Your task to perform on an android device: open app "NewsBreak: Local News & Alerts" (install if not already installed) and go to login screen Image 0: 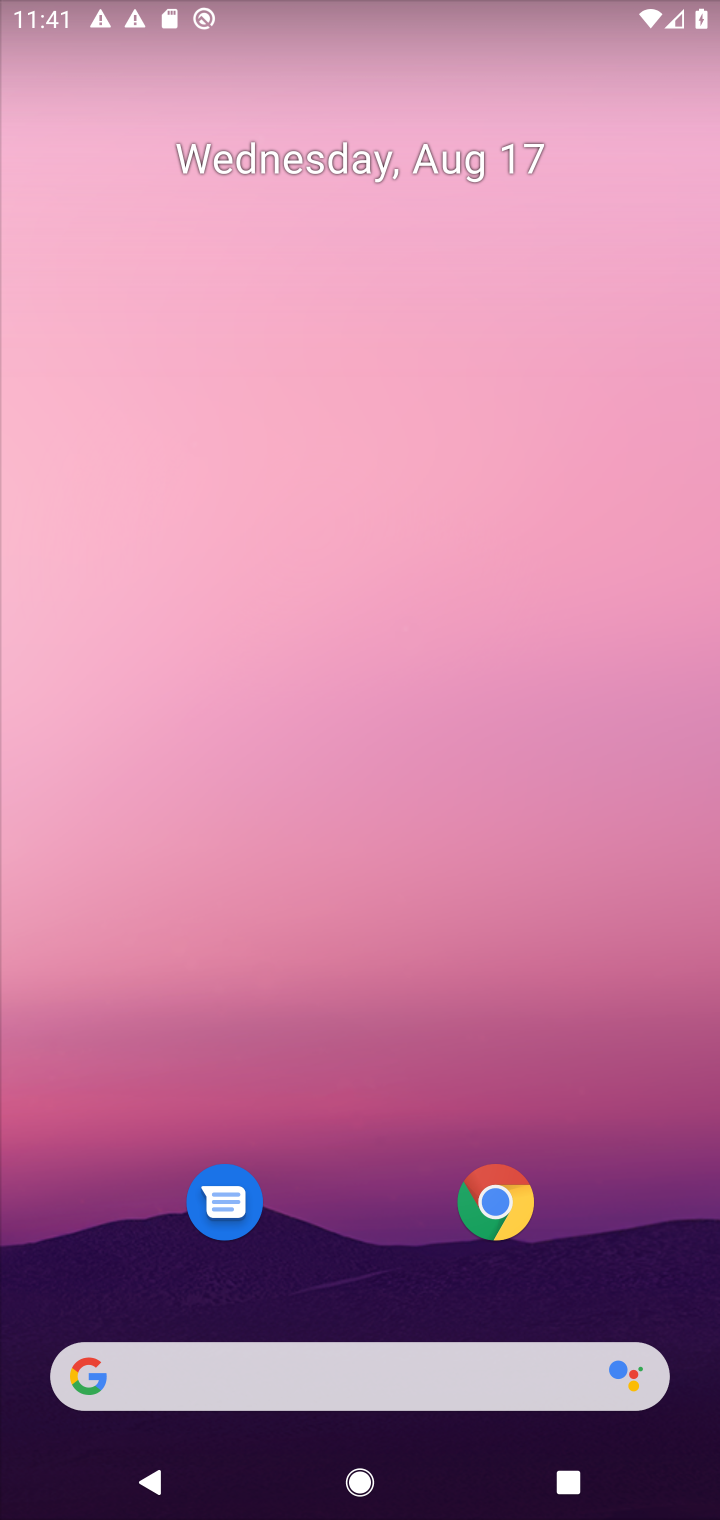
Step 0: drag from (333, 1293) to (245, 182)
Your task to perform on an android device: open app "NewsBreak: Local News & Alerts" (install if not already installed) and go to login screen Image 1: 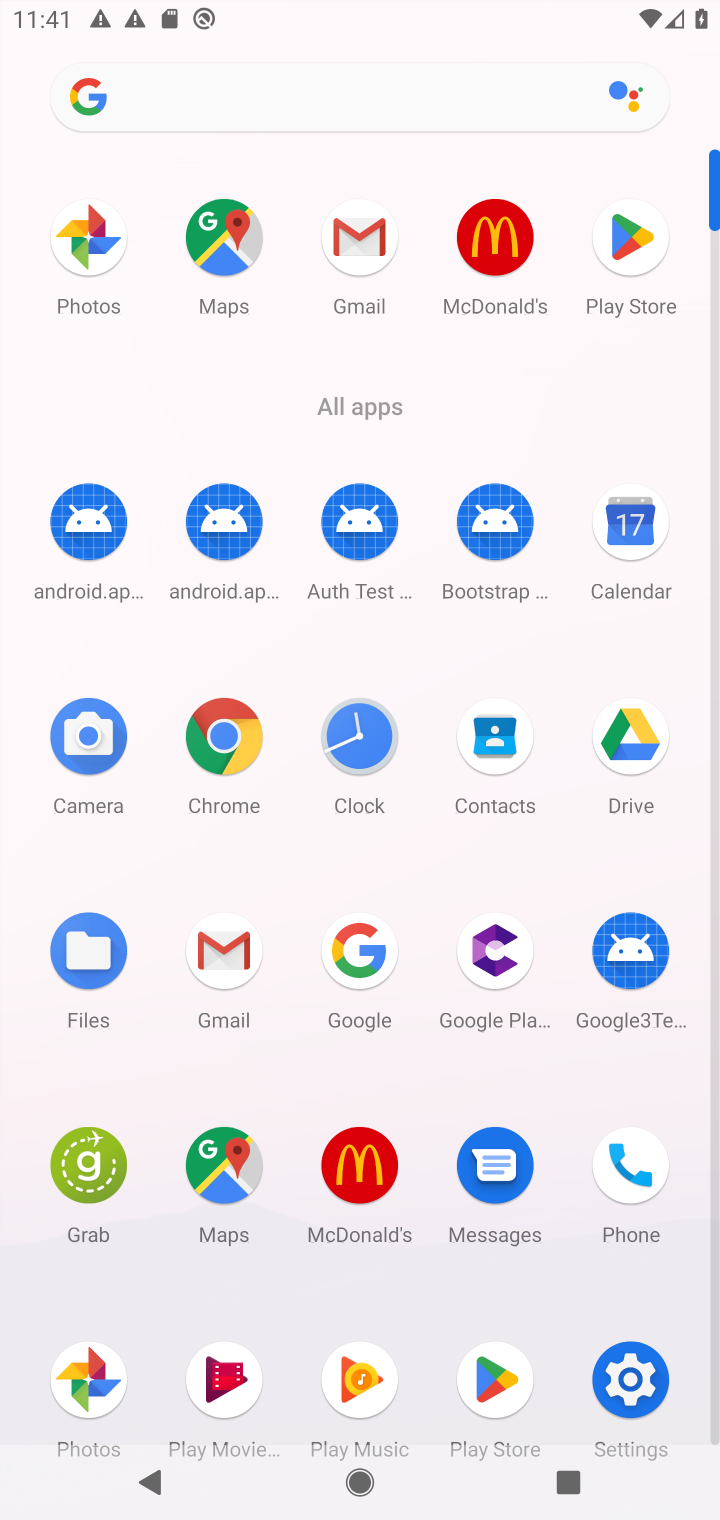
Step 1: click (659, 234)
Your task to perform on an android device: open app "NewsBreak: Local News & Alerts" (install if not already installed) and go to login screen Image 2: 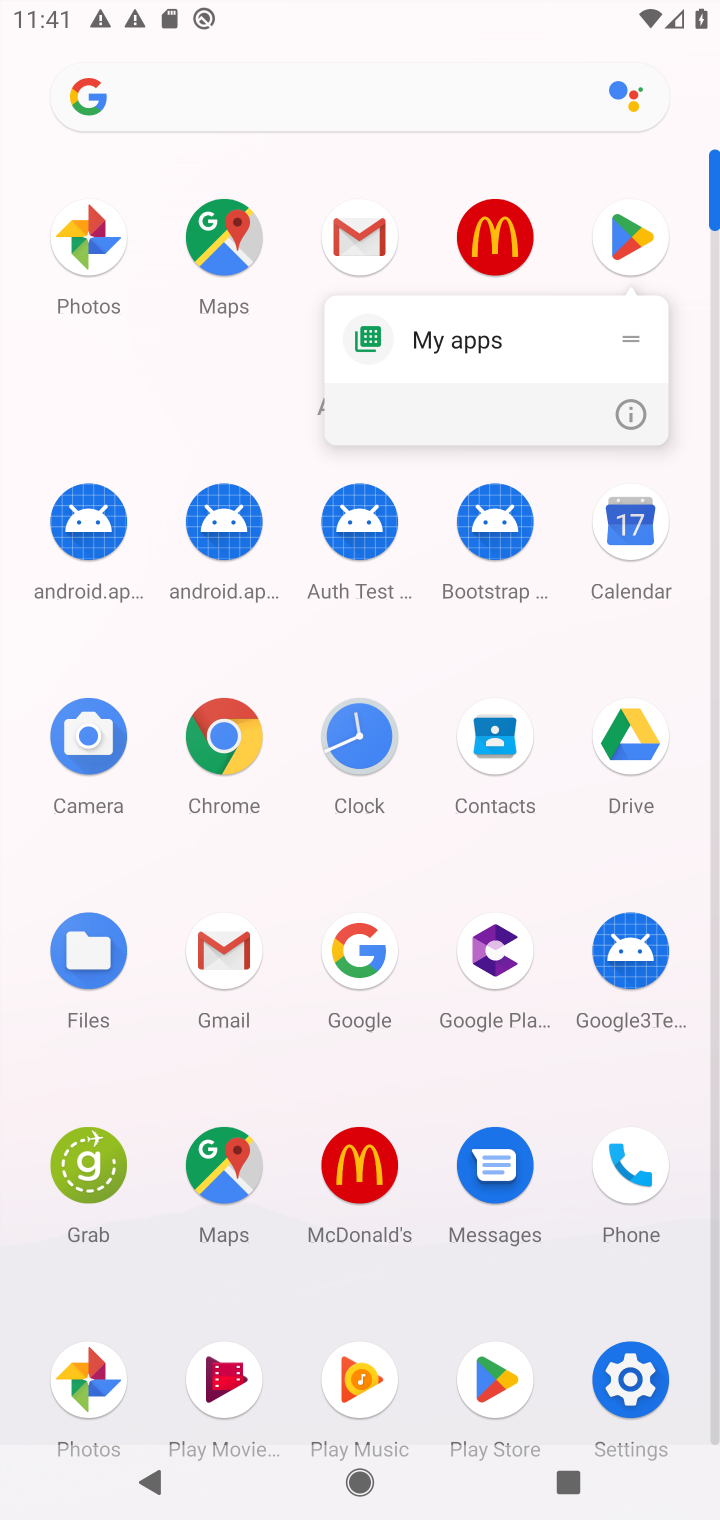
Step 2: click (618, 253)
Your task to perform on an android device: open app "NewsBreak: Local News & Alerts" (install if not already installed) and go to login screen Image 3: 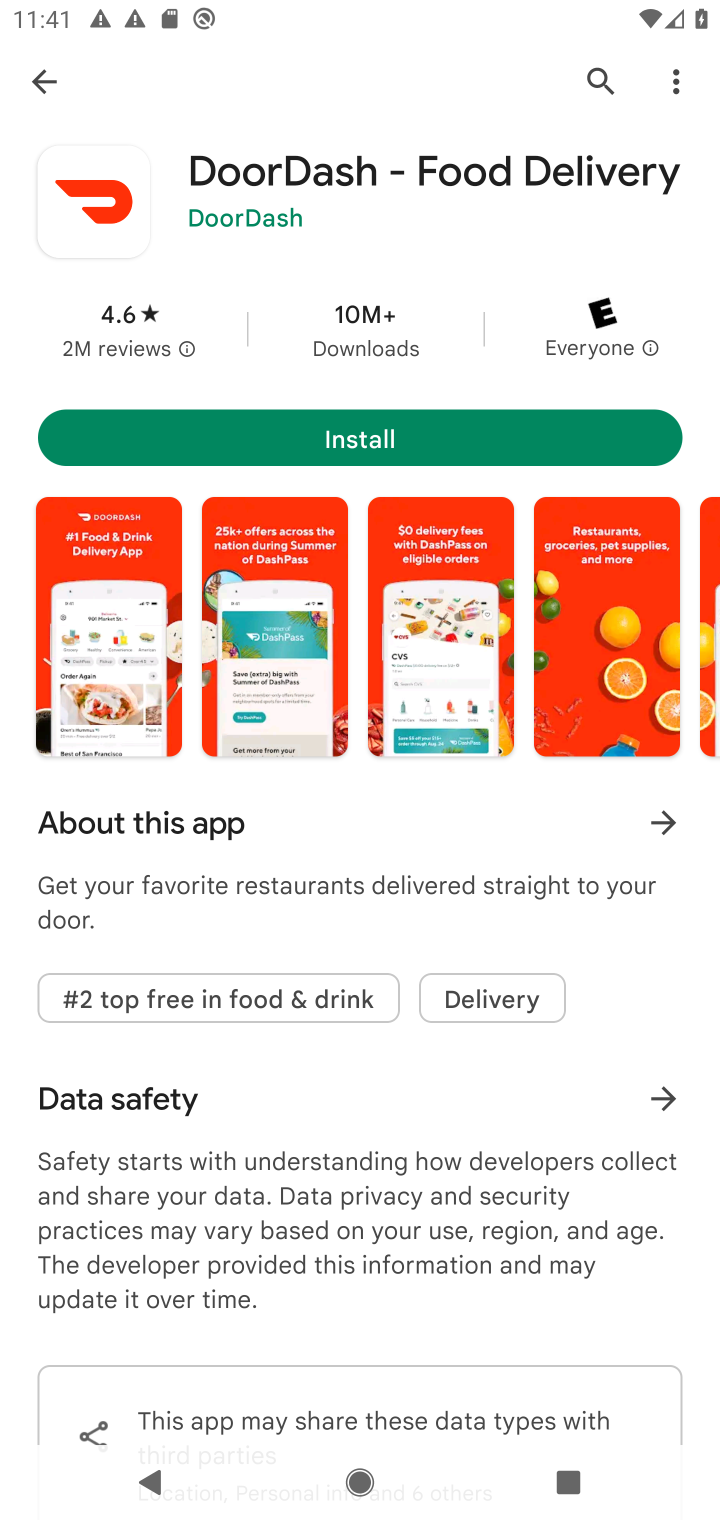
Step 3: click (65, 64)
Your task to perform on an android device: open app "NewsBreak: Local News & Alerts" (install if not already installed) and go to login screen Image 4: 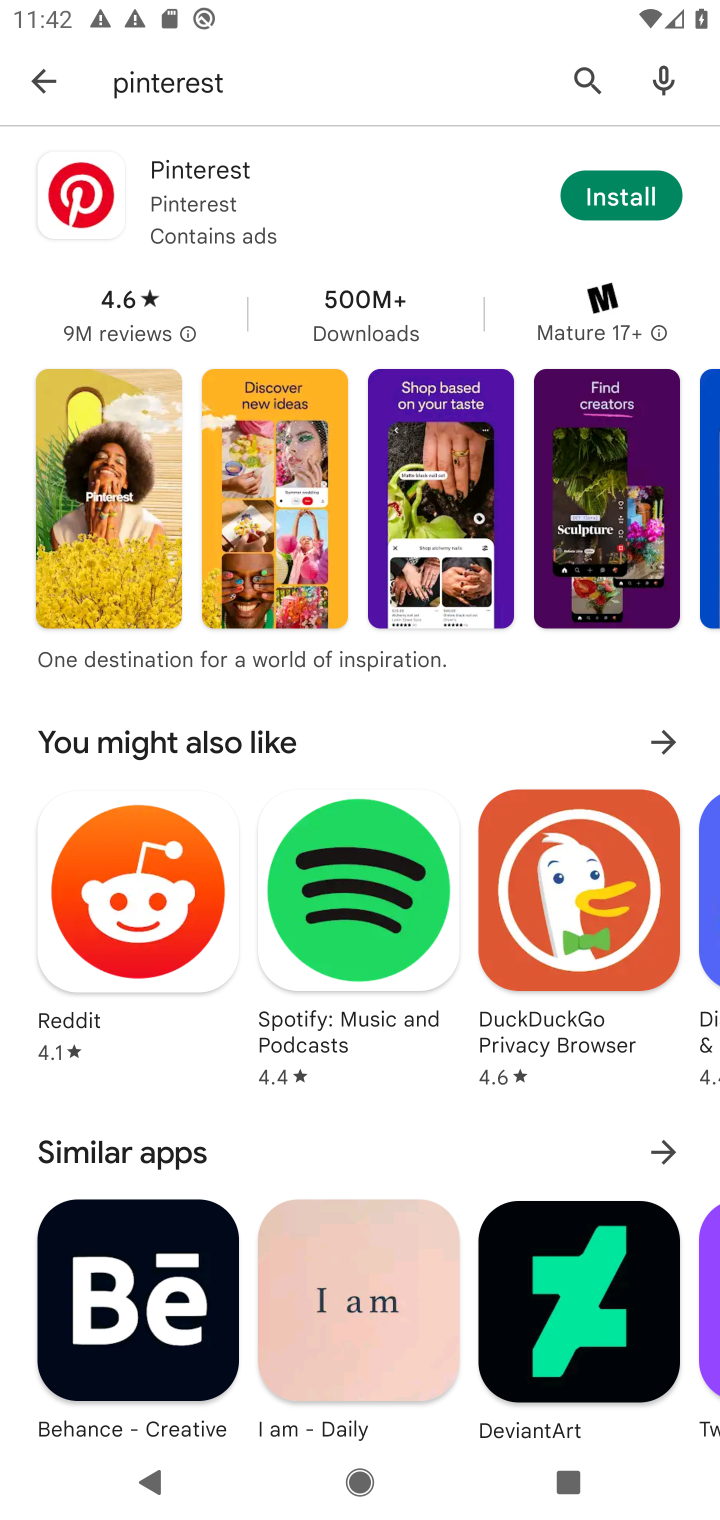
Step 4: press home button
Your task to perform on an android device: open app "NewsBreak: Local News & Alerts" (install if not already installed) and go to login screen Image 5: 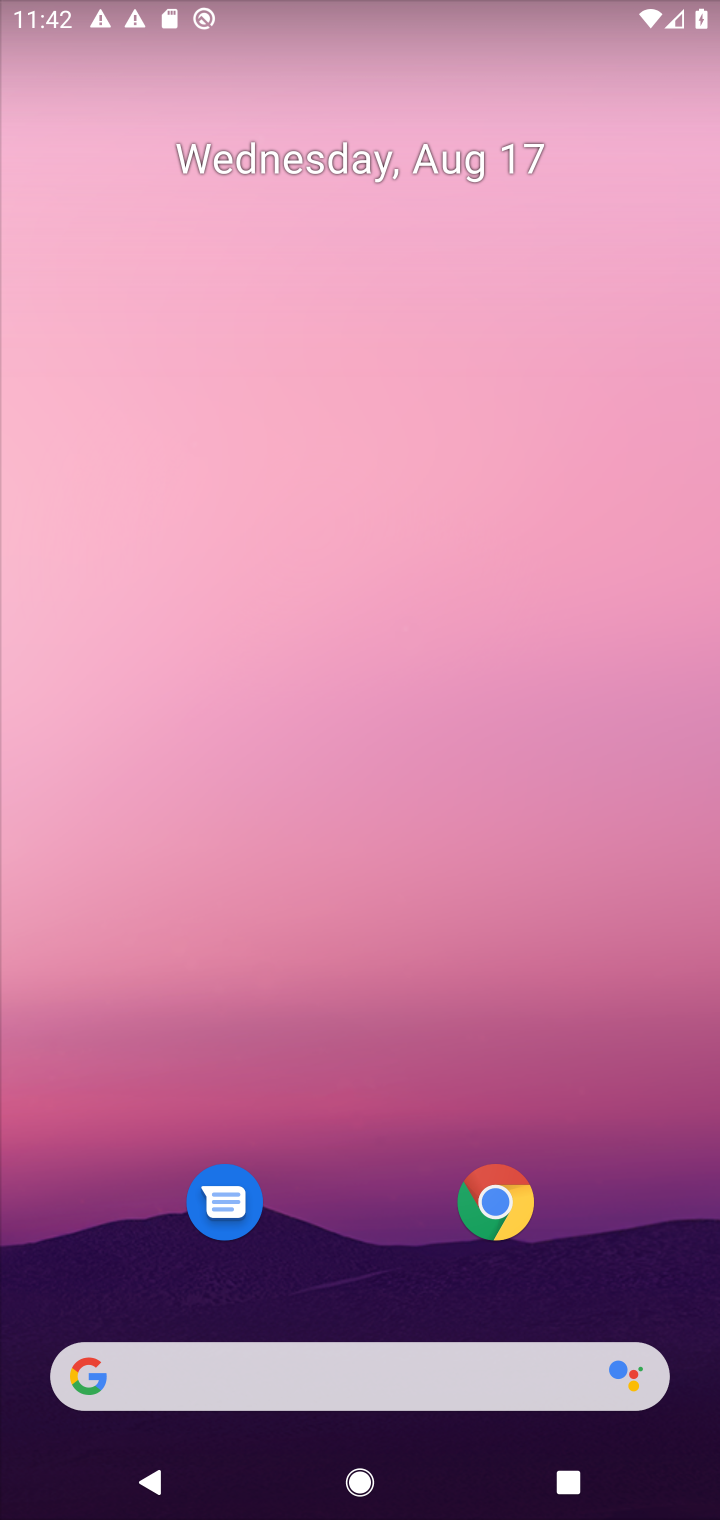
Step 5: drag from (343, 1275) to (511, 974)
Your task to perform on an android device: open app "NewsBreak: Local News & Alerts" (install if not already installed) and go to login screen Image 6: 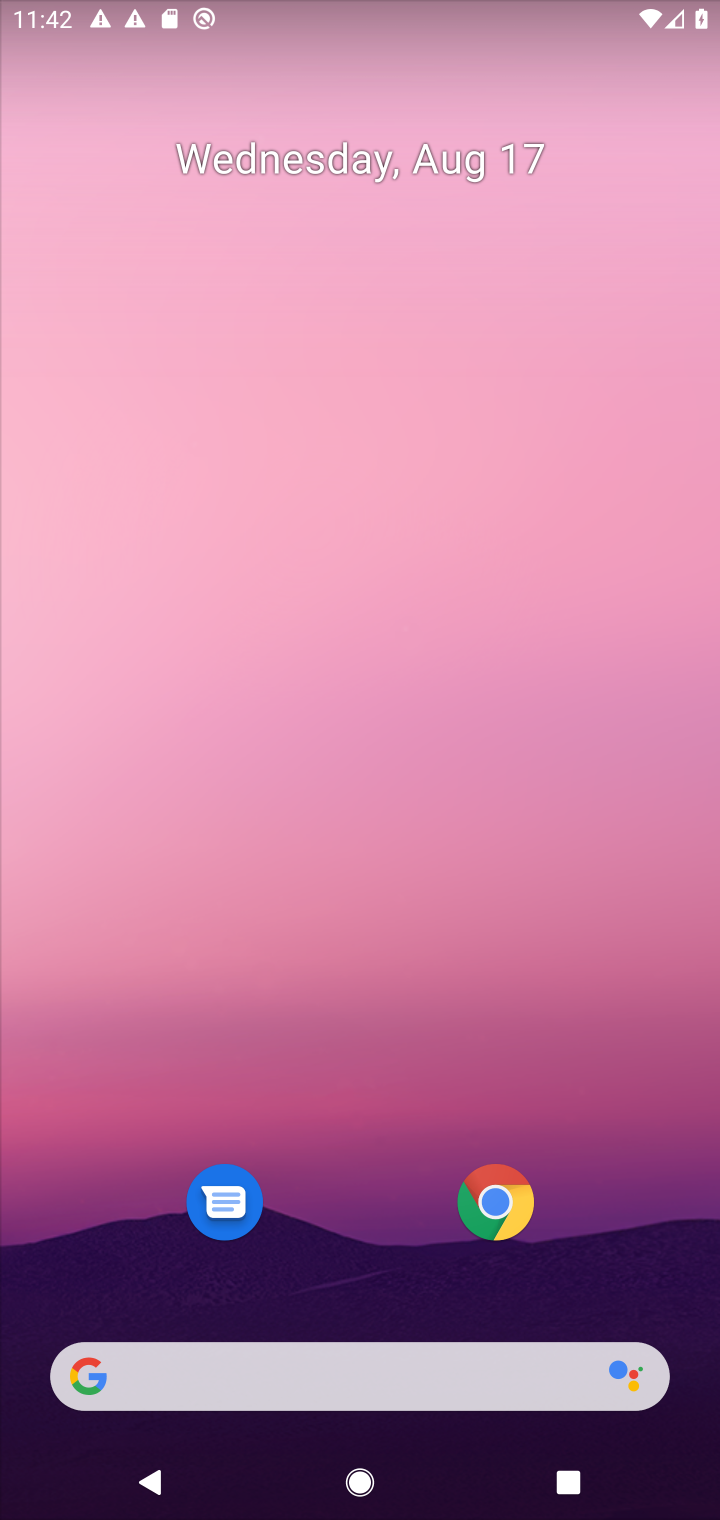
Step 6: drag from (322, 1322) to (657, 233)
Your task to perform on an android device: open app "NewsBreak: Local News & Alerts" (install if not already installed) and go to login screen Image 7: 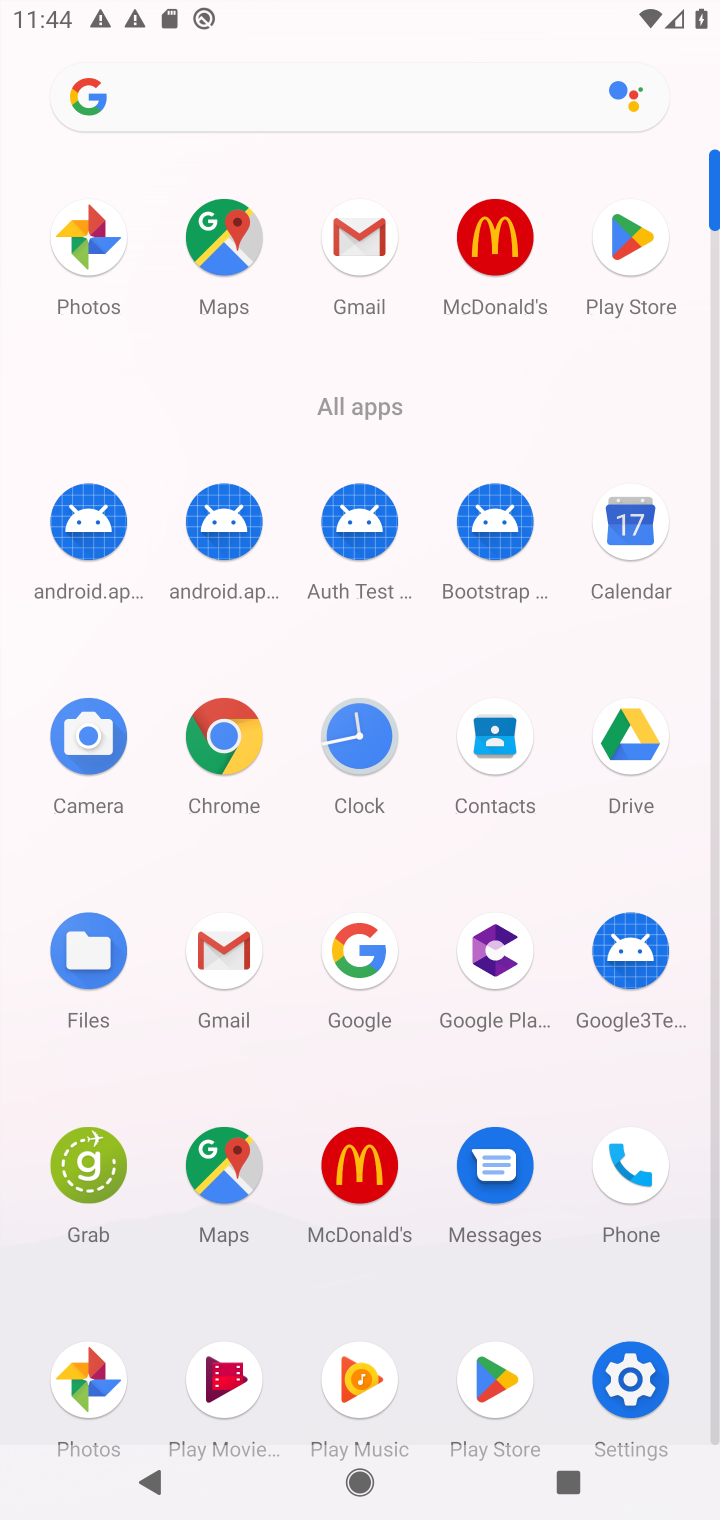
Step 7: click (499, 1391)
Your task to perform on an android device: open app "NewsBreak: Local News & Alerts" (install if not already installed) and go to login screen Image 8: 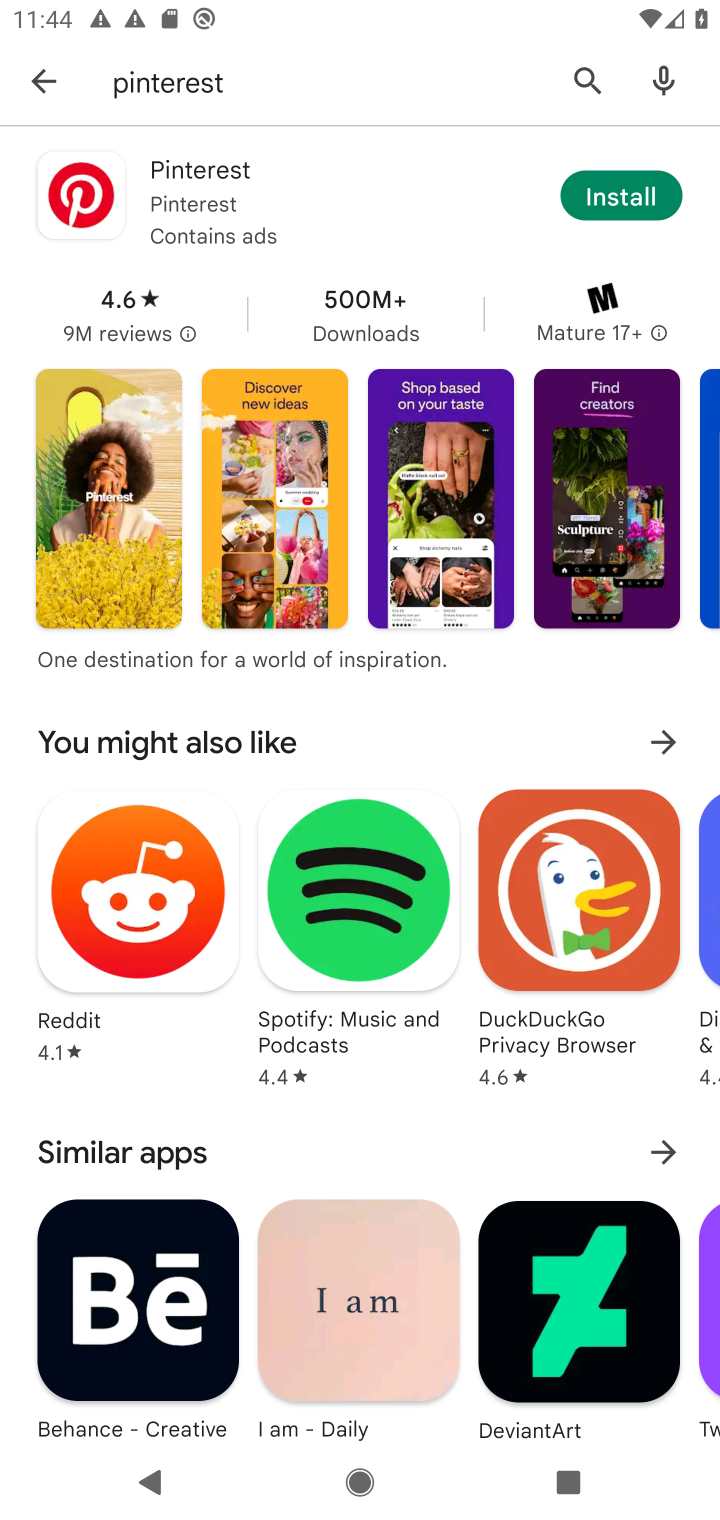
Step 8: click (42, 88)
Your task to perform on an android device: open app "NewsBreak: Local News & Alerts" (install if not already installed) and go to login screen Image 9: 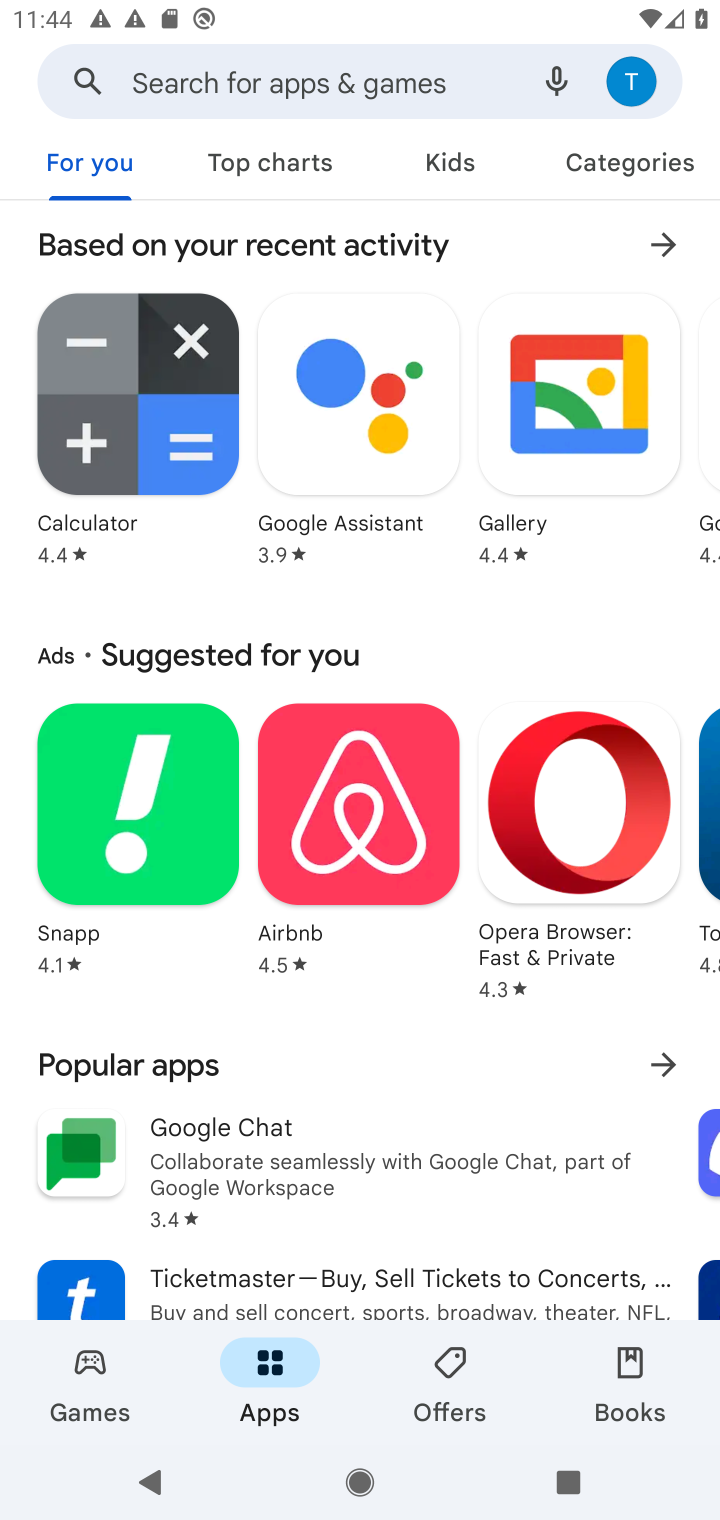
Step 9: click (219, 48)
Your task to perform on an android device: open app "NewsBreak: Local News & Alerts" (install if not already installed) and go to login screen Image 10: 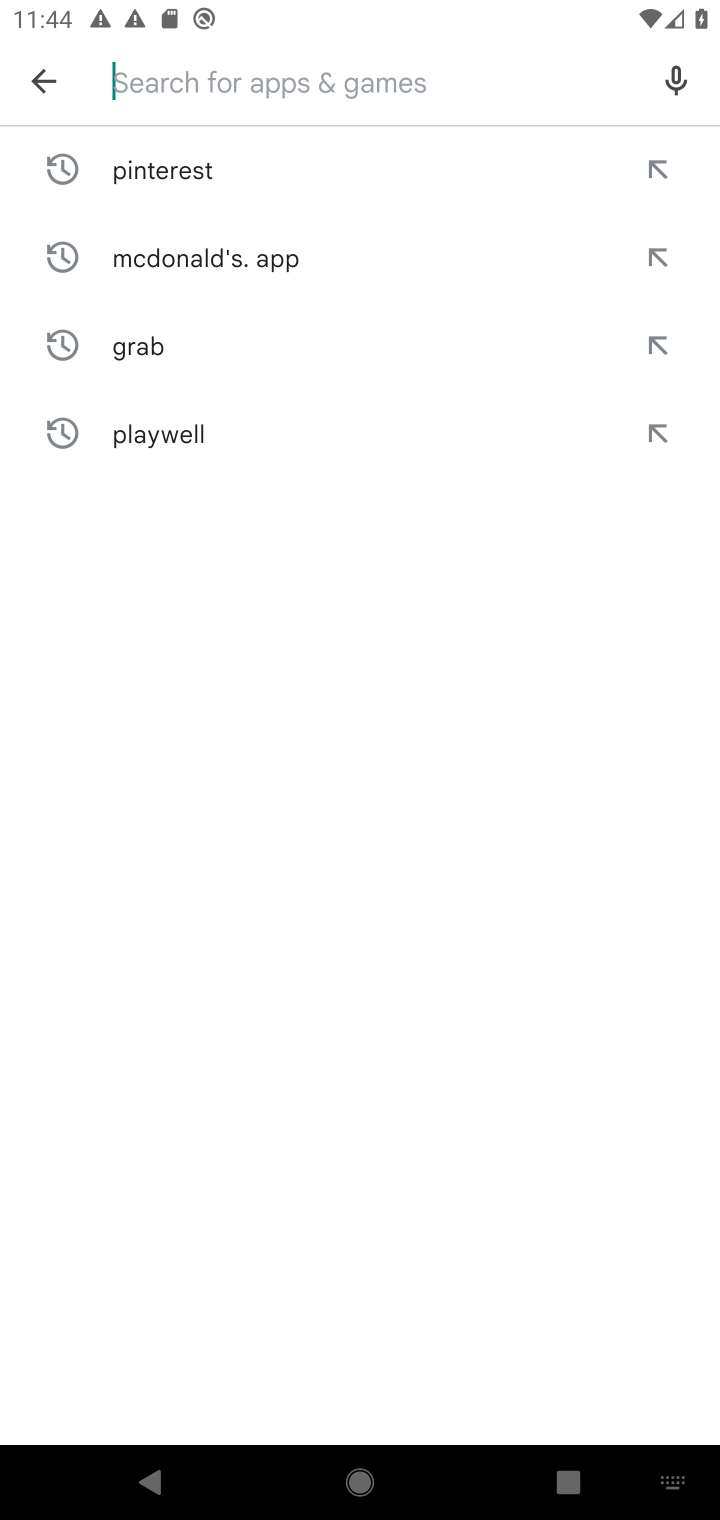
Step 10: type "NewsBreak"
Your task to perform on an android device: open app "NewsBreak: Local News & Alerts" (install if not already installed) and go to login screen Image 11: 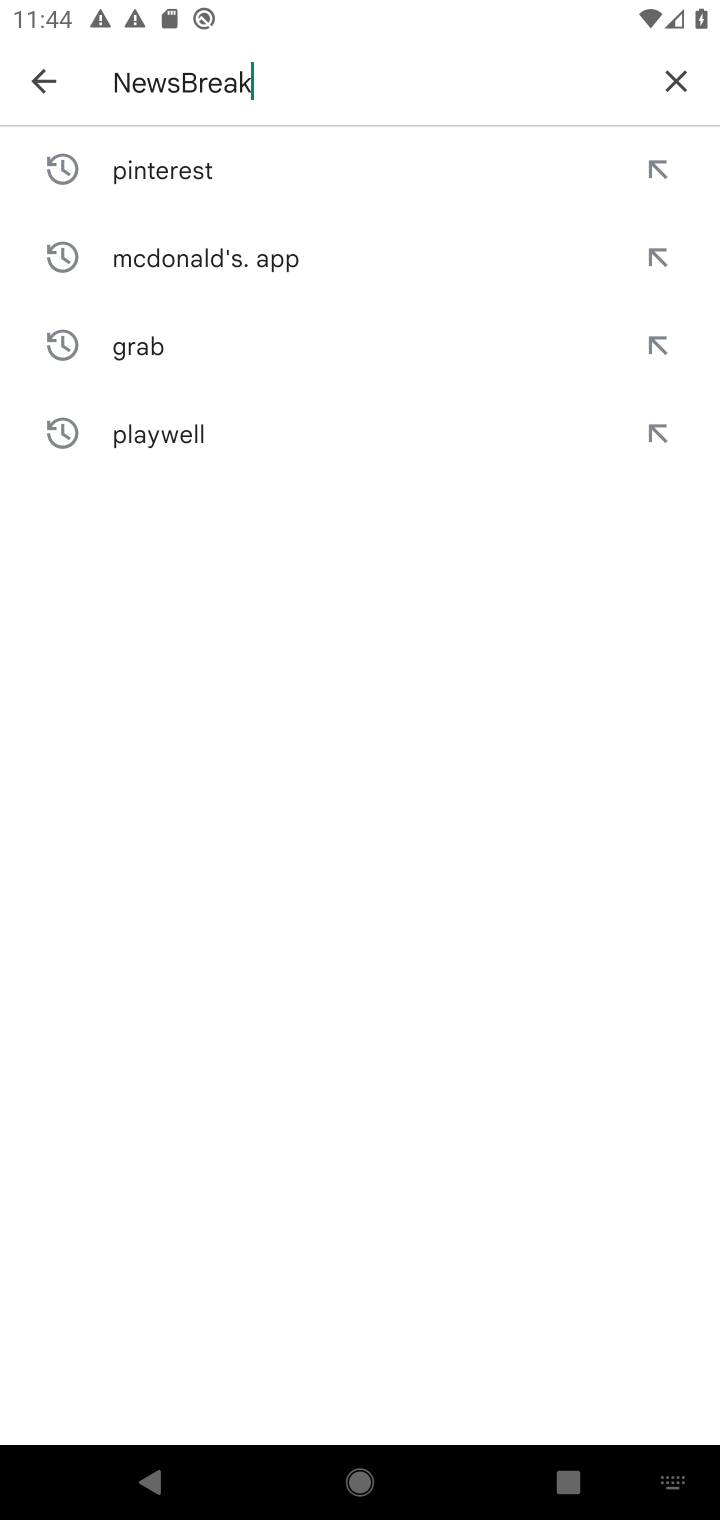
Step 11: type ""
Your task to perform on an android device: open app "NewsBreak: Local News & Alerts" (install if not already installed) and go to login screen Image 12: 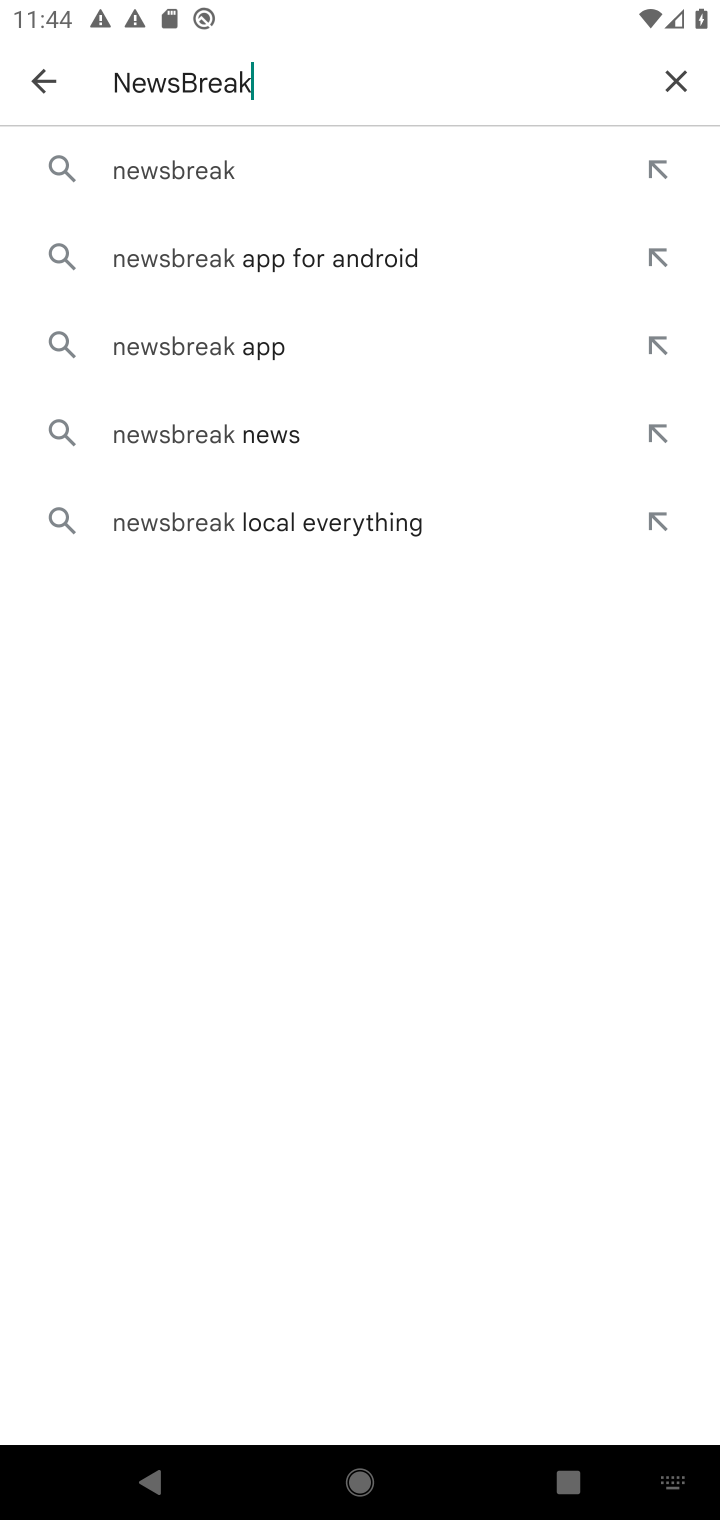
Step 12: click (197, 165)
Your task to perform on an android device: open app "NewsBreak: Local News & Alerts" (install if not already installed) and go to login screen Image 13: 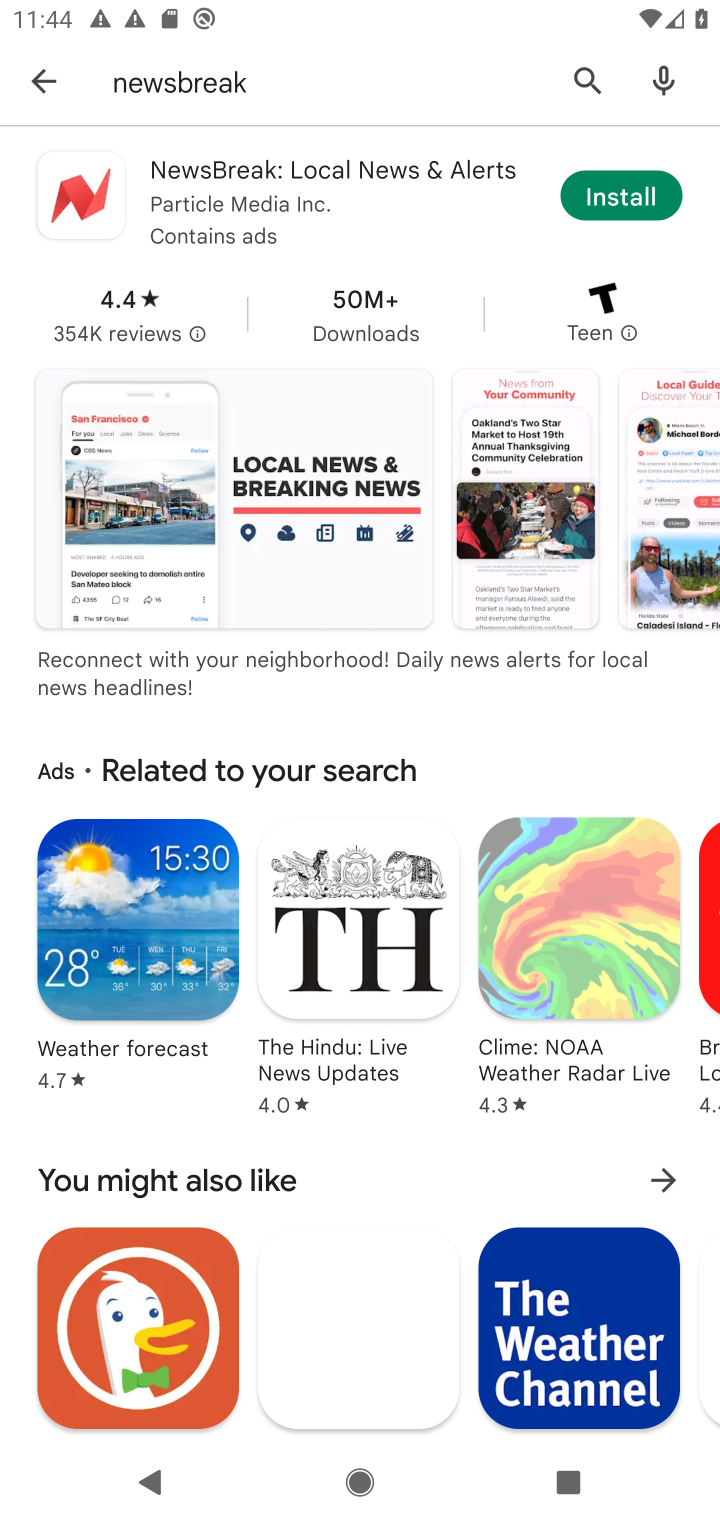
Step 13: click (632, 182)
Your task to perform on an android device: open app "NewsBreak: Local News & Alerts" (install if not already installed) and go to login screen Image 14: 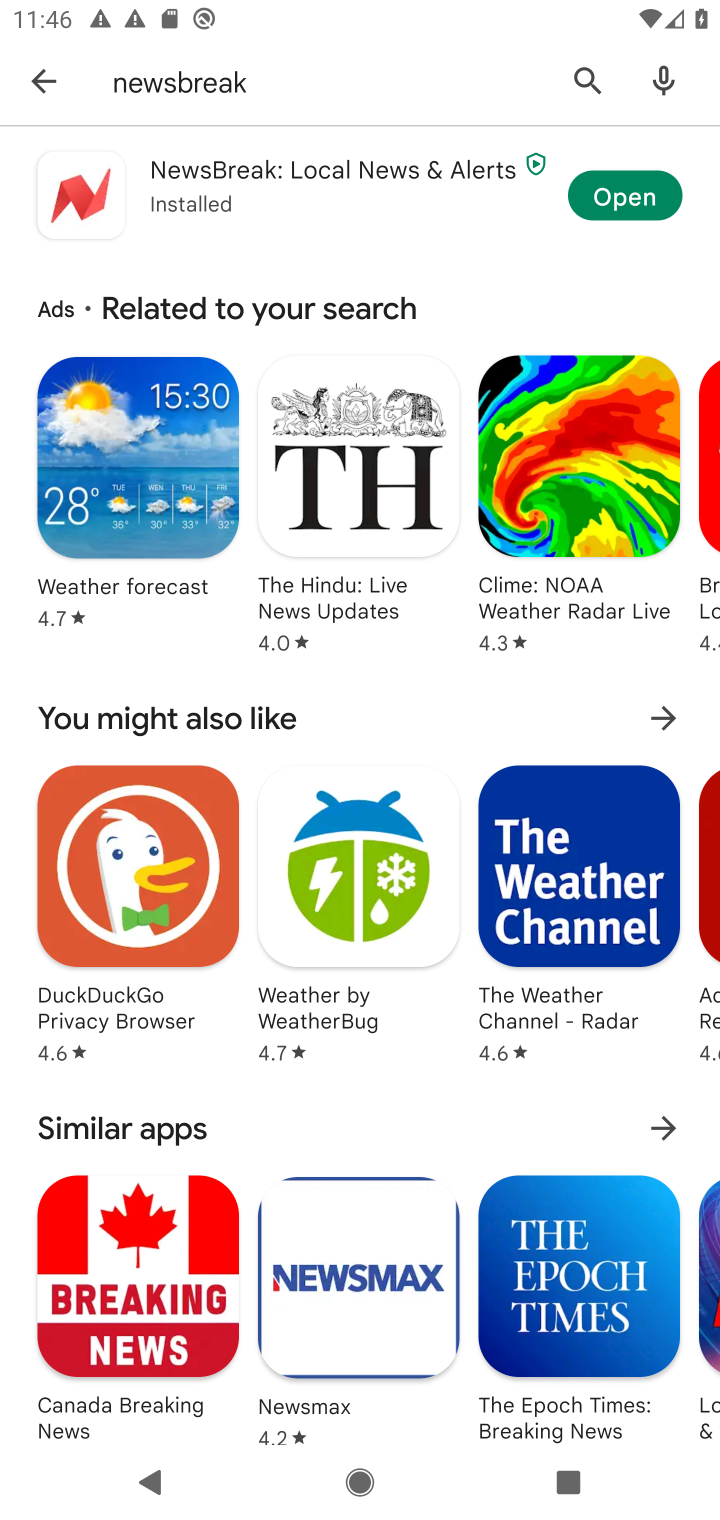
Step 14: click (614, 200)
Your task to perform on an android device: open app "NewsBreak: Local News & Alerts" (install if not already installed) and go to login screen Image 15: 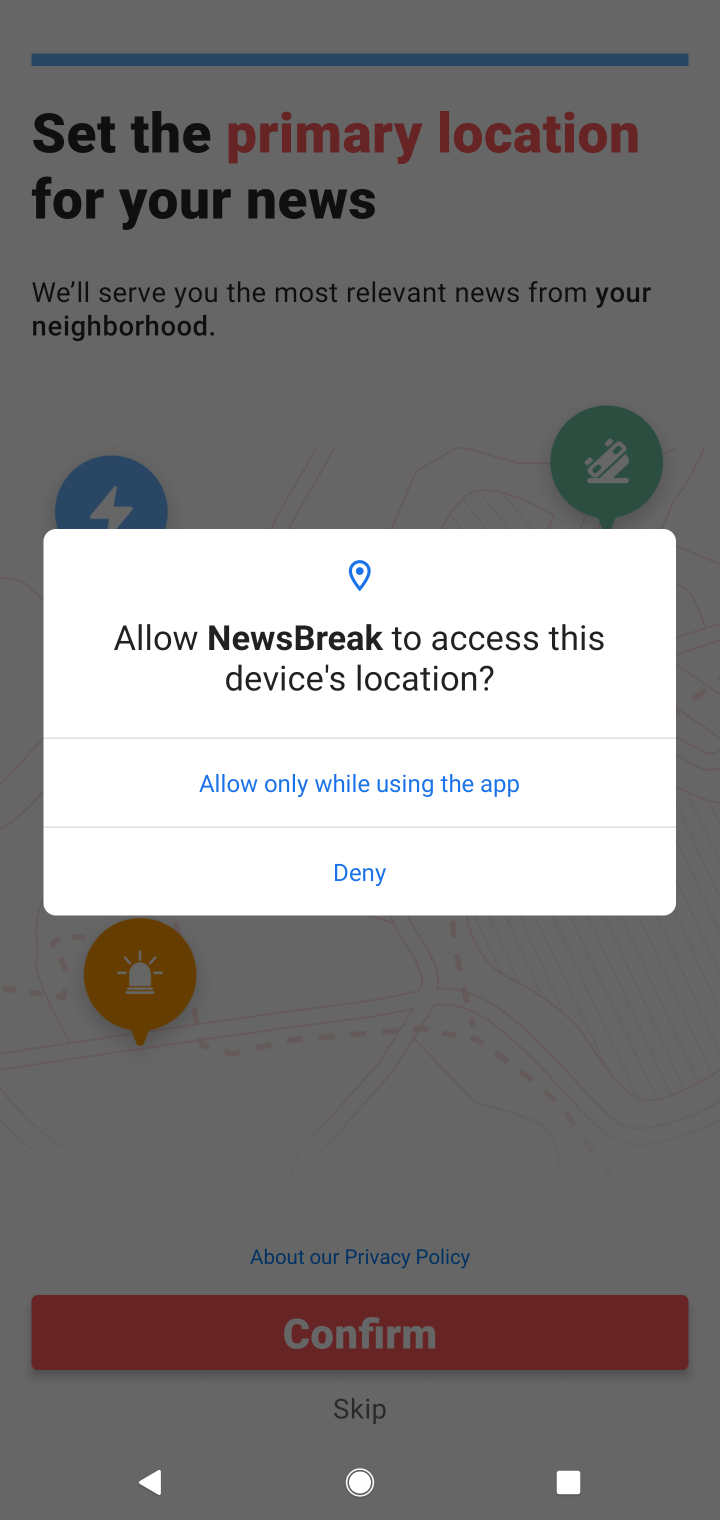
Step 15: click (346, 788)
Your task to perform on an android device: open app "NewsBreak: Local News & Alerts" (install if not already installed) and go to login screen Image 16: 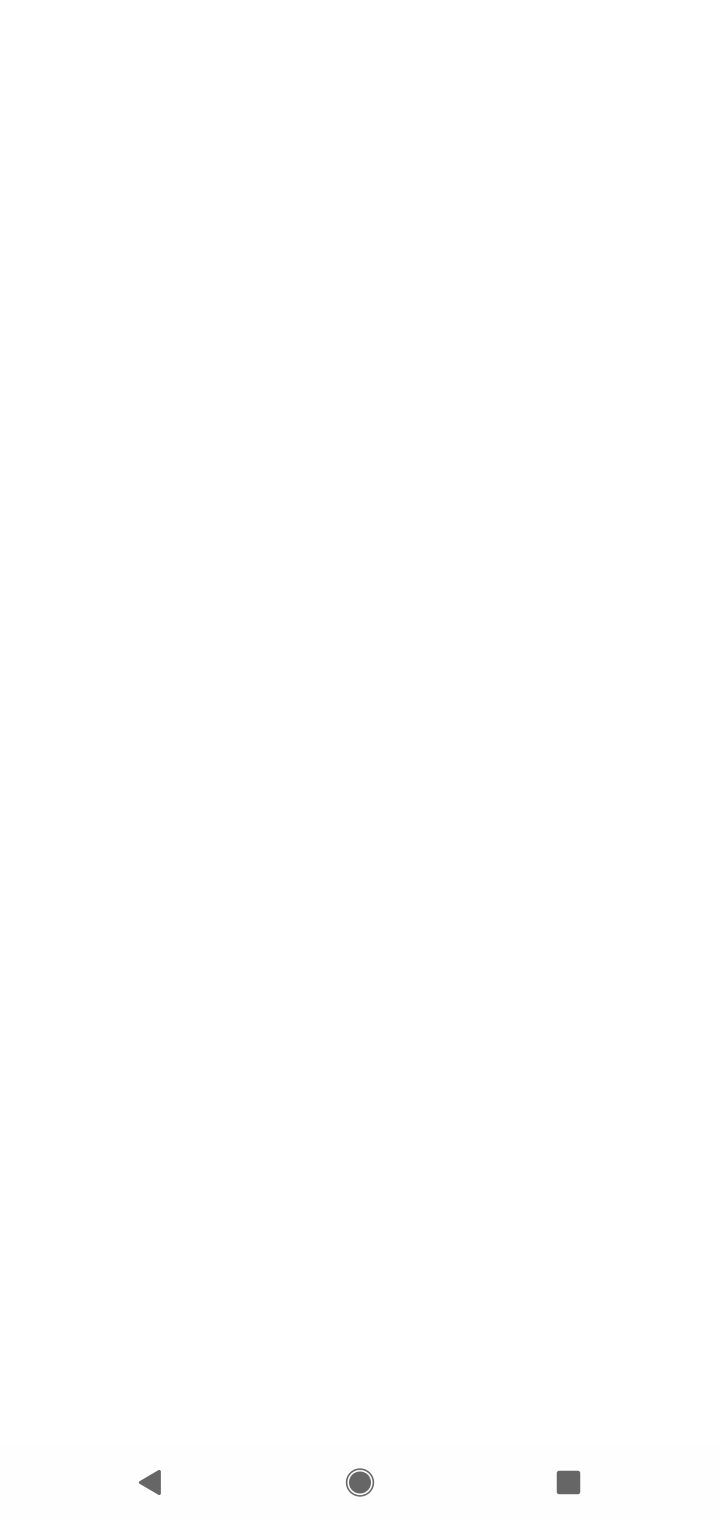
Step 16: click (377, 1335)
Your task to perform on an android device: open app "NewsBreak: Local News & Alerts" (install if not already installed) and go to login screen Image 17: 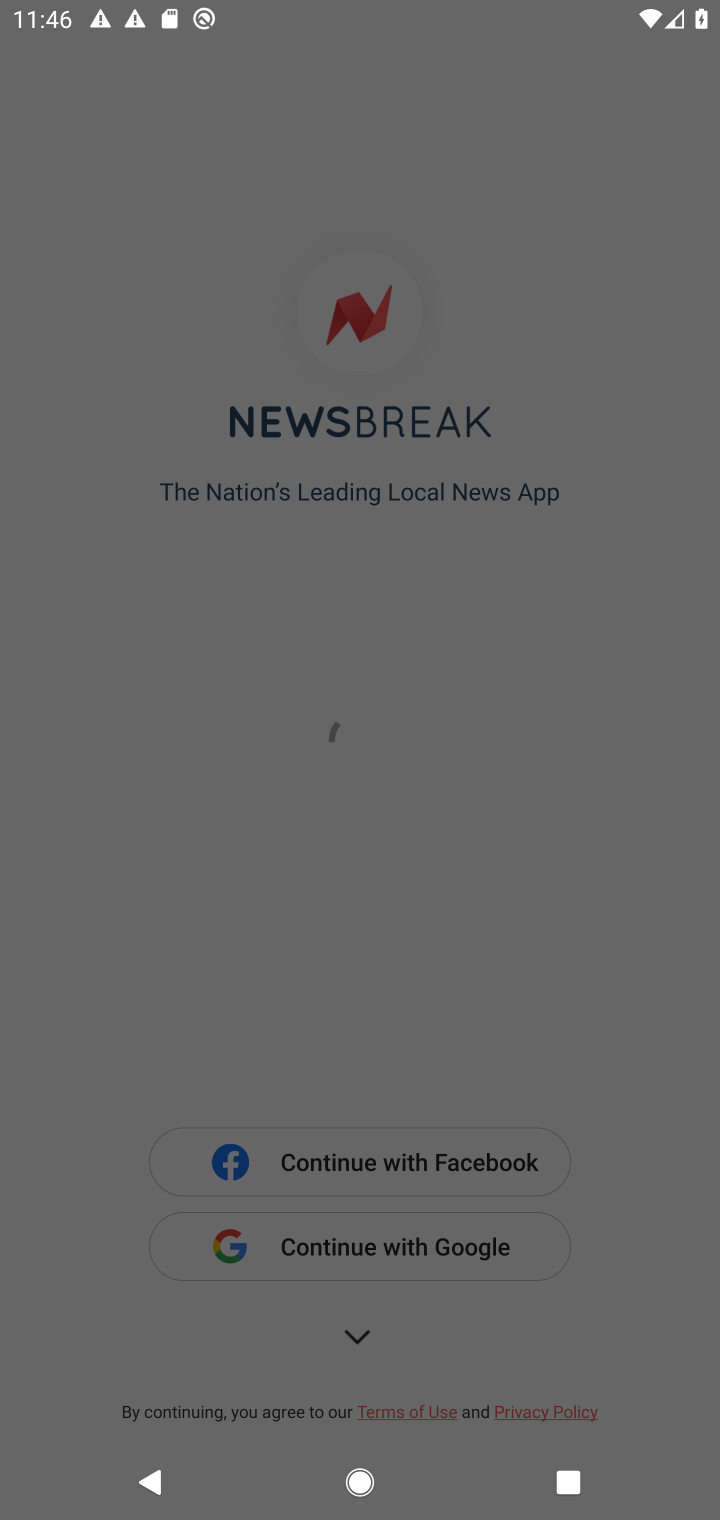
Step 17: click (525, 865)
Your task to perform on an android device: open app "NewsBreak: Local News & Alerts" (install if not already installed) and go to login screen Image 18: 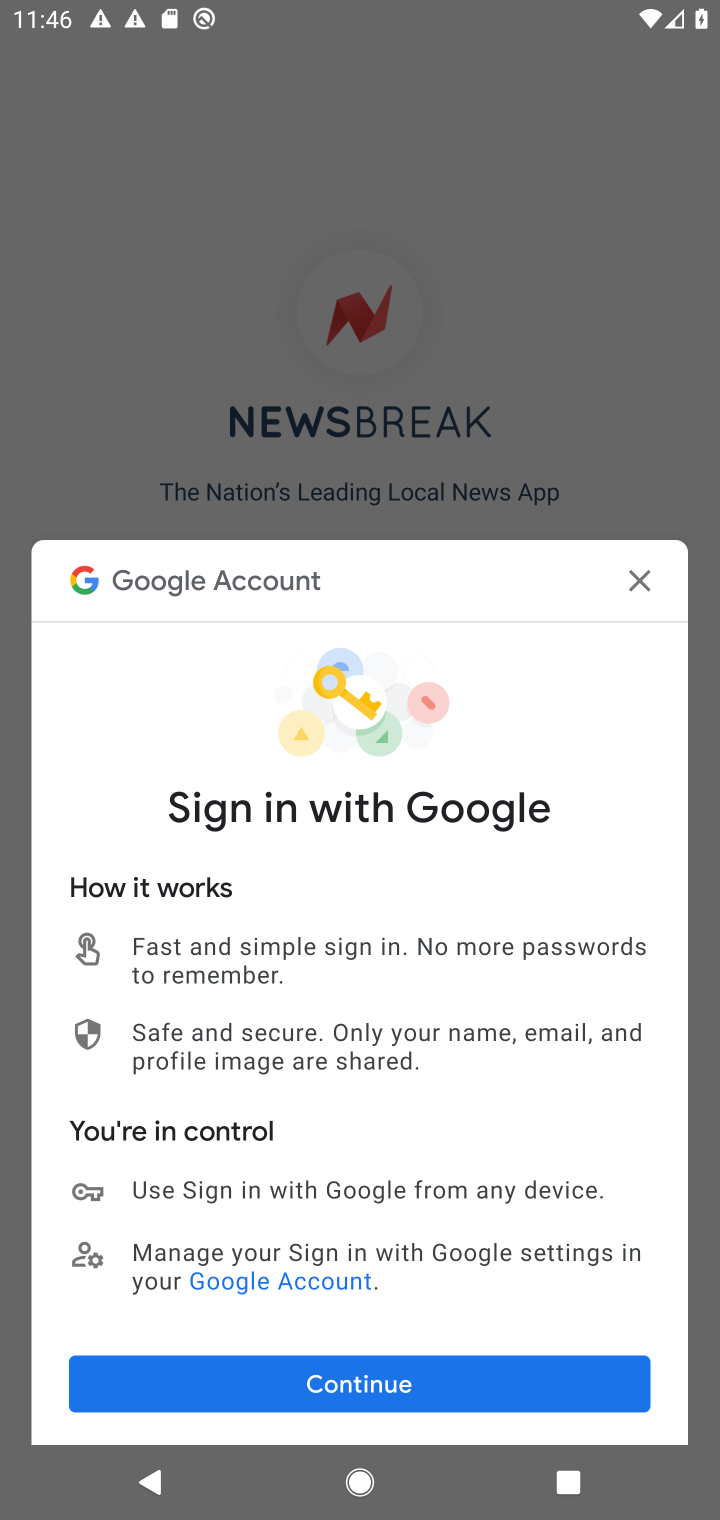
Step 18: task complete